Your task to perform on an android device: see tabs open on other devices in the chrome app Image 0: 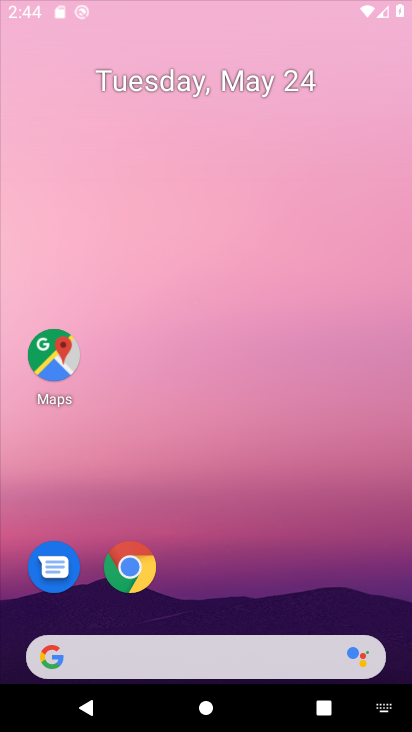
Step 0: click (140, 578)
Your task to perform on an android device: see tabs open on other devices in the chrome app Image 1: 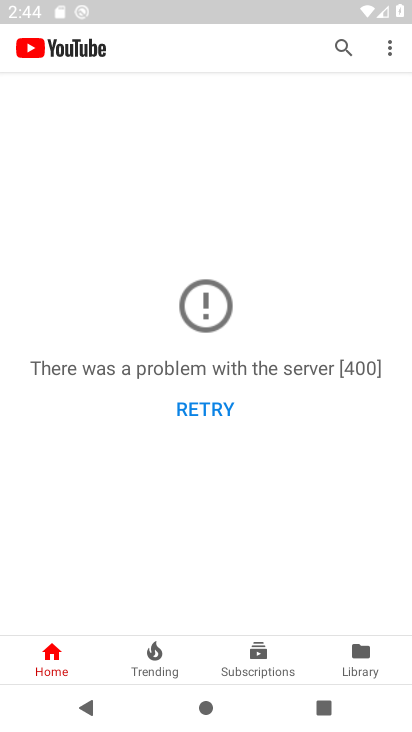
Step 1: press home button
Your task to perform on an android device: see tabs open on other devices in the chrome app Image 2: 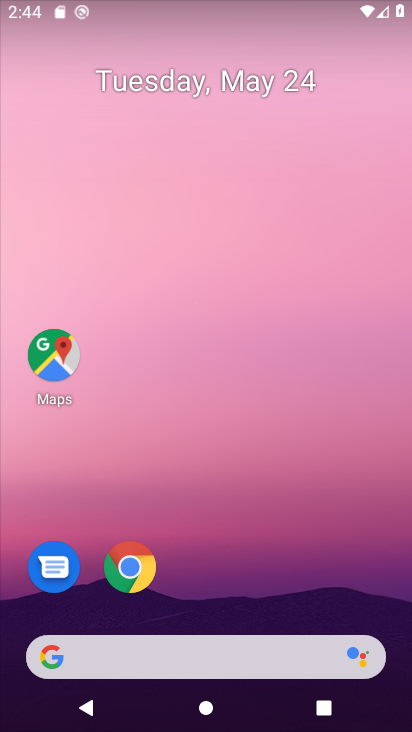
Step 2: click (142, 576)
Your task to perform on an android device: see tabs open on other devices in the chrome app Image 3: 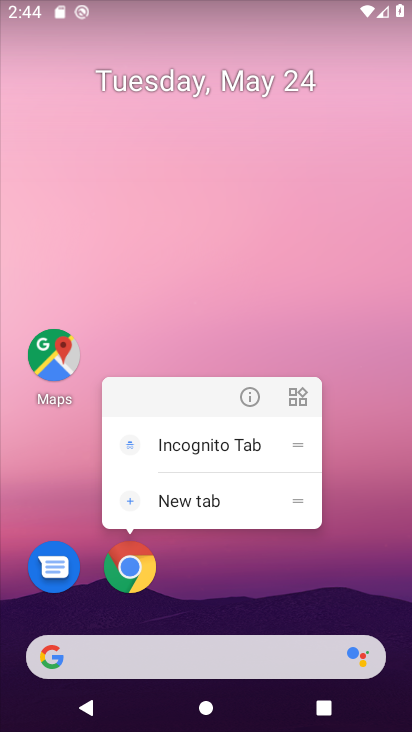
Step 3: click (139, 577)
Your task to perform on an android device: see tabs open on other devices in the chrome app Image 4: 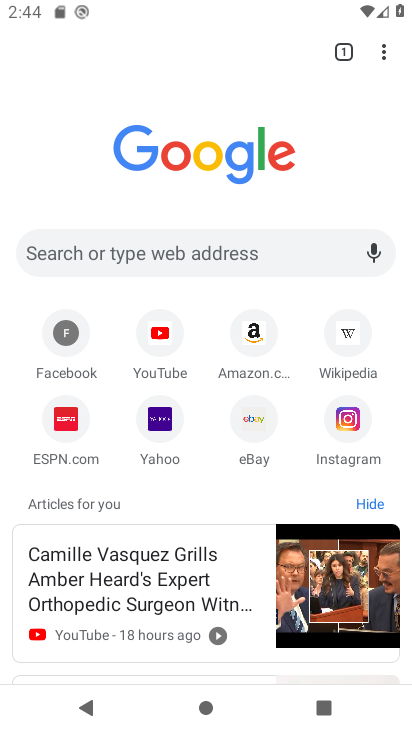
Step 4: task complete